Your task to perform on an android device: change the clock display to analog Image 0: 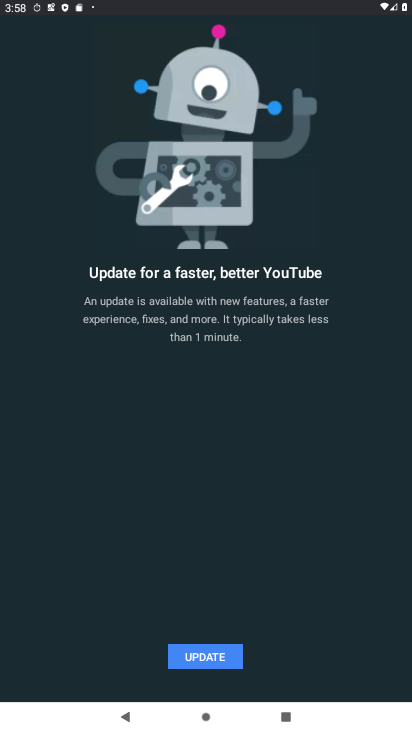
Step 0: press home button
Your task to perform on an android device: change the clock display to analog Image 1: 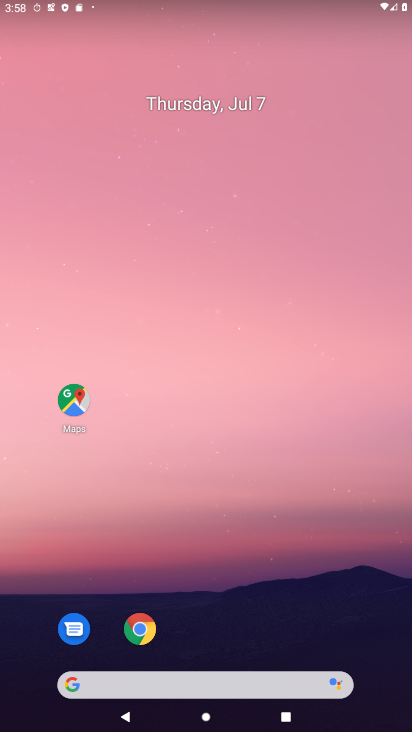
Step 1: drag from (207, 627) to (243, 47)
Your task to perform on an android device: change the clock display to analog Image 2: 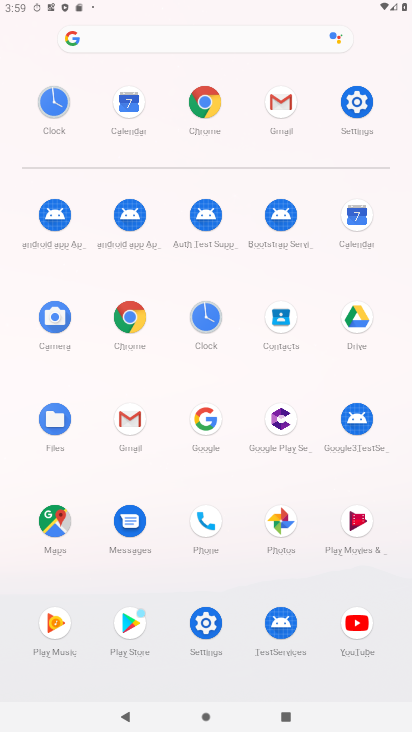
Step 2: click (209, 331)
Your task to perform on an android device: change the clock display to analog Image 3: 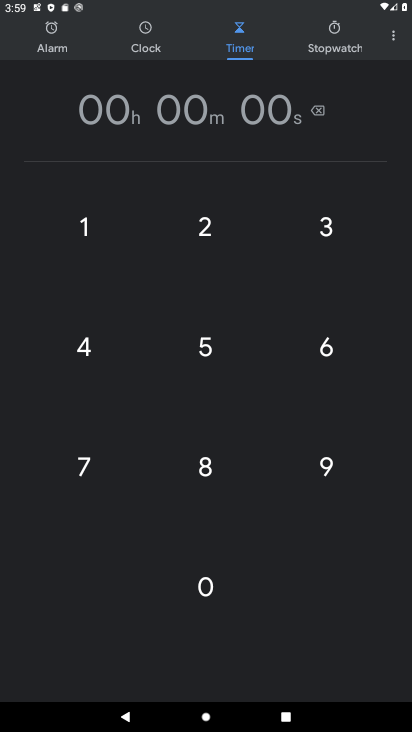
Step 3: click (395, 39)
Your task to perform on an android device: change the clock display to analog Image 4: 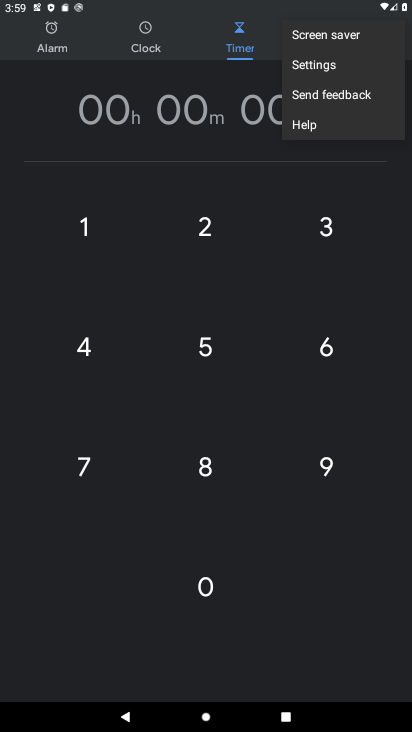
Step 4: click (303, 74)
Your task to perform on an android device: change the clock display to analog Image 5: 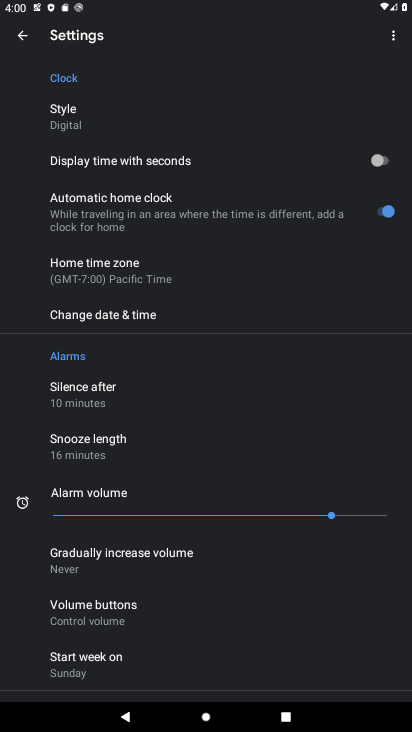
Step 5: click (73, 120)
Your task to perform on an android device: change the clock display to analog Image 6: 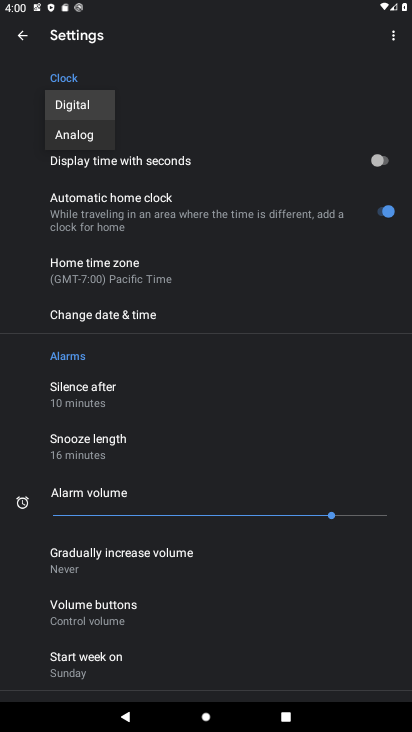
Step 6: click (77, 131)
Your task to perform on an android device: change the clock display to analog Image 7: 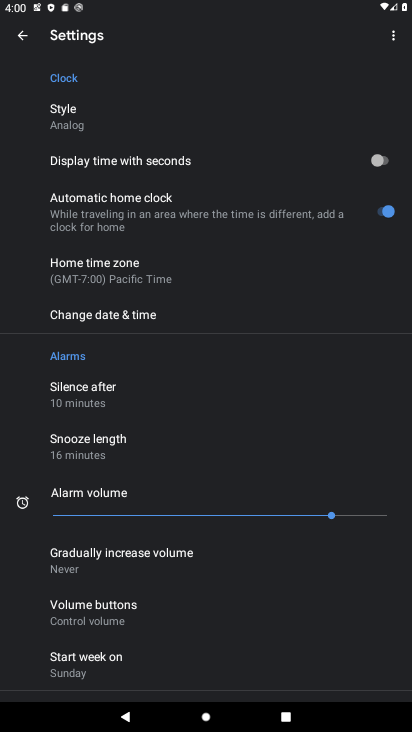
Step 7: task complete